Your task to perform on an android device: refresh tabs in the chrome app Image 0: 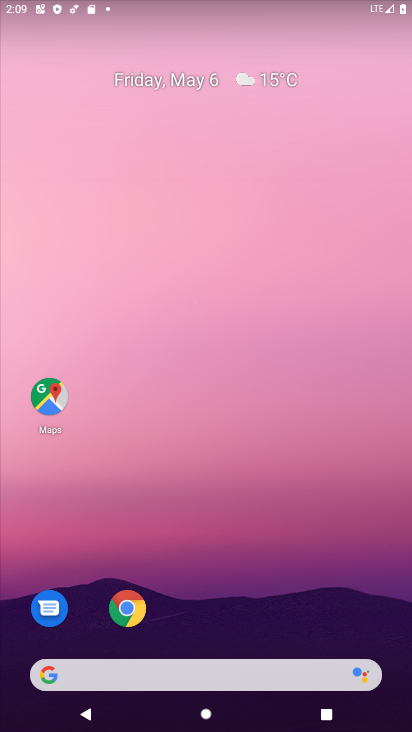
Step 0: click (128, 613)
Your task to perform on an android device: refresh tabs in the chrome app Image 1: 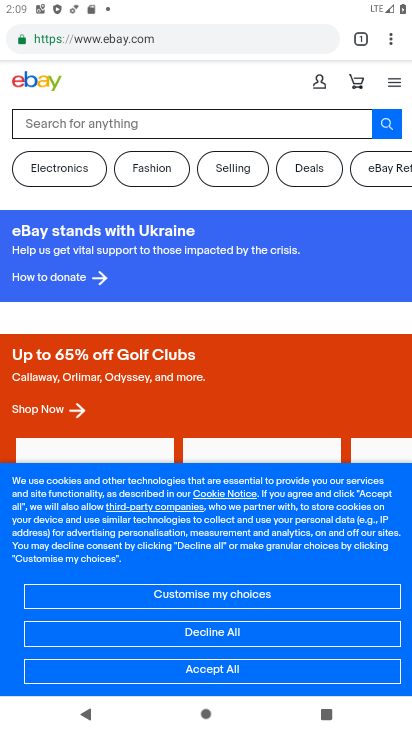
Step 1: click (391, 41)
Your task to perform on an android device: refresh tabs in the chrome app Image 2: 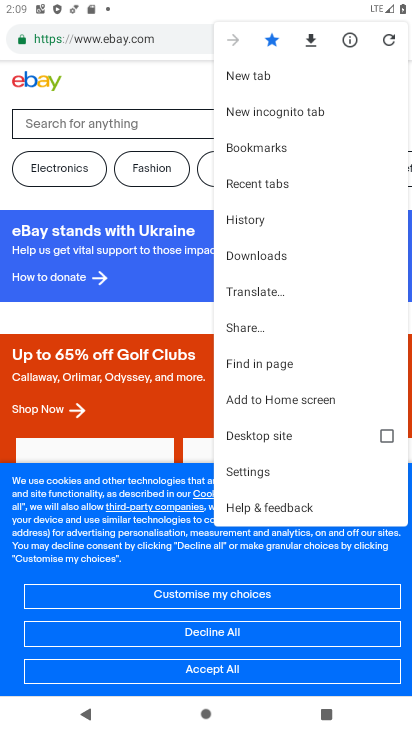
Step 2: click (386, 37)
Your task to perform on an android device: refresh tabs in the chrome app Image 3: 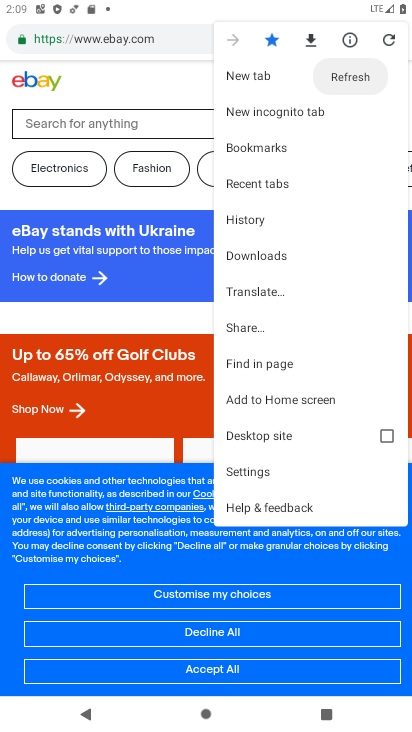
Step 3: click (386, 37)
Your task to perform on an android device: refresh tabs in the chrome app Image 4: 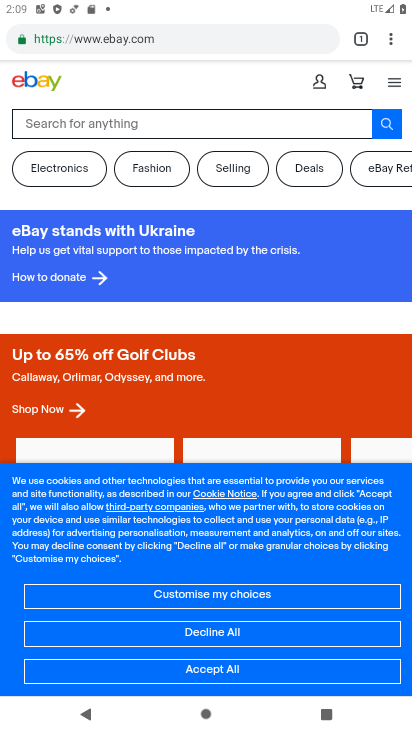
Step 4: task complete